Your task to perform on an android device: refresh tabs in the chrome app Image 0: 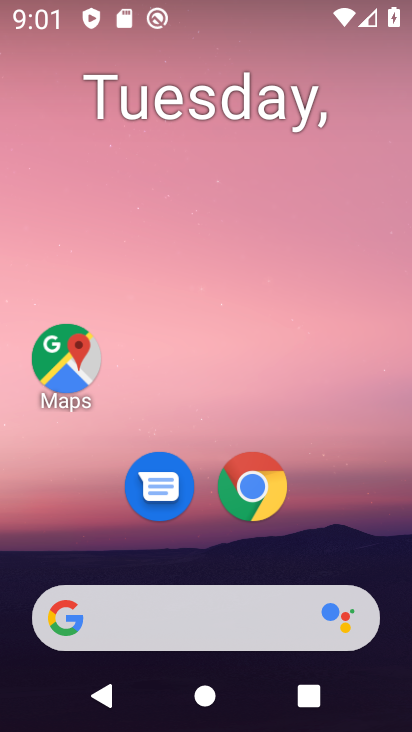
Step 0: press home button
Your task to perform on an android device: refresh tabs in the chrome app Image 1: 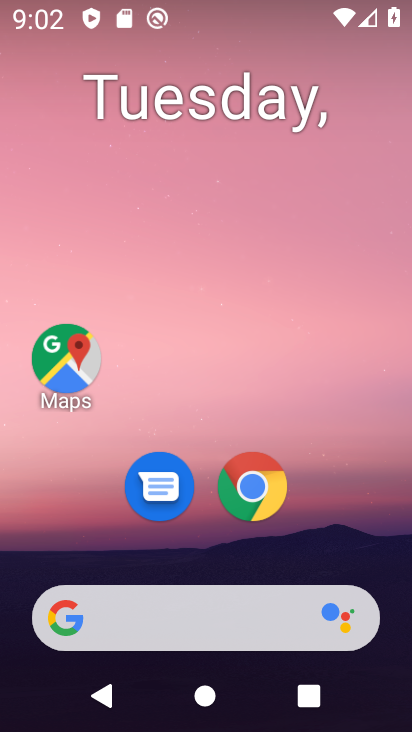
Step 1: drag from (334, 533) to (352, 203)
Your task to perform on an android device: refresh tabs in the chrome app Image 2: 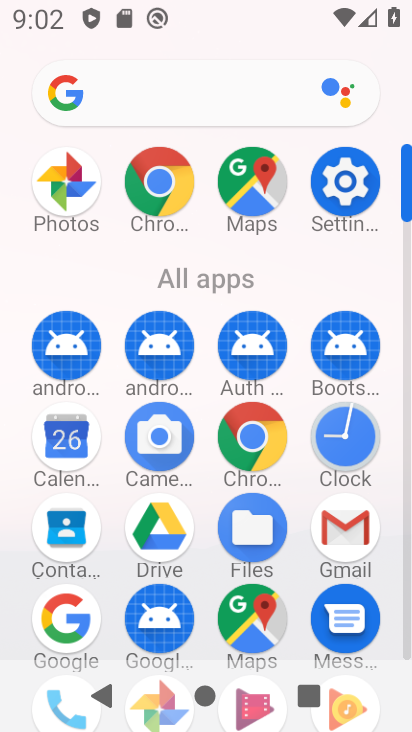
Step 2: click (254, 434)
Your task to perform on an android device: refresh tabs in the chrome app Image 3: 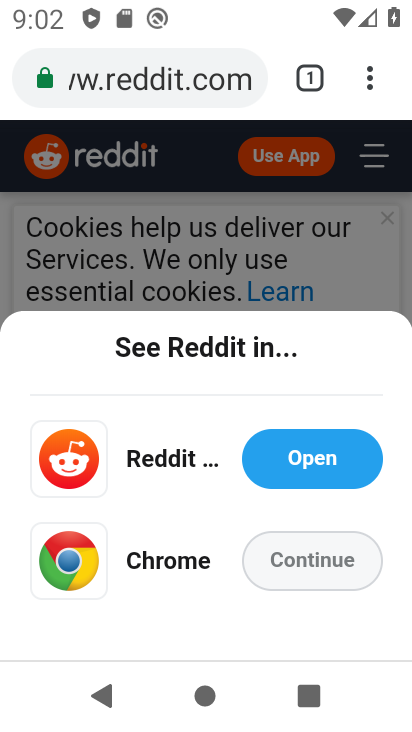
Step 3: click (367, 86)
Your task to perform on an android device: refresh tabs in the chrome app Image 4: 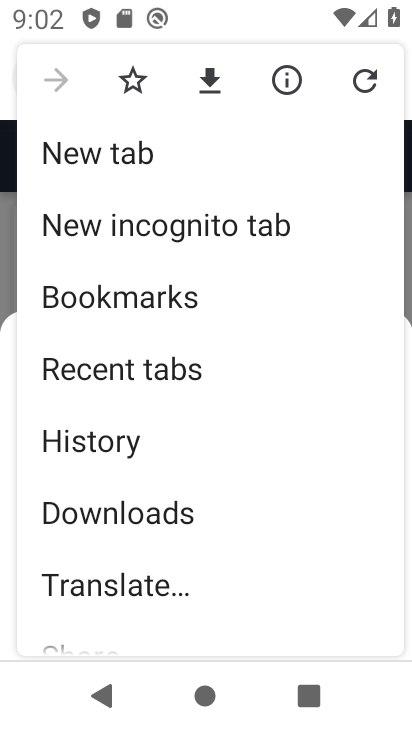
Step 4: click (367, 86)
Your task to perform on an android device: refresh tabs in the chrome app Image 5: 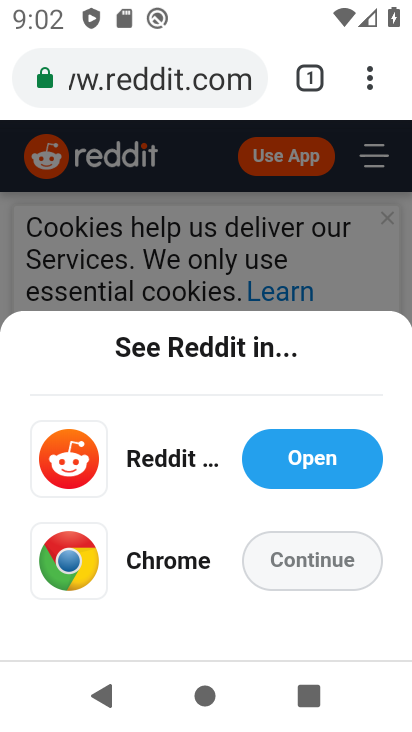
Step 5: task complete